Your task to perform on an android device: Search for Mexican restaurants on Maps Image 0: 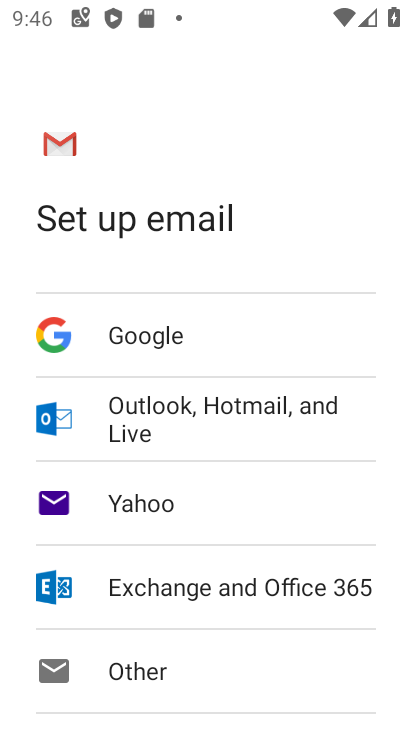
Step 0: press home button
Your task to perform on an android device: Search for Mexican restaurants on Maps Image 1: 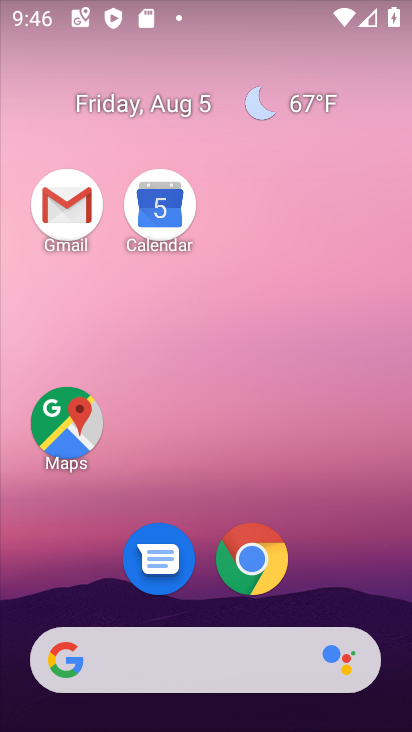
Step 1: click (71, 417)
Your task to perform on an android device: Search for Mexican restaurants on Maps Image 2: 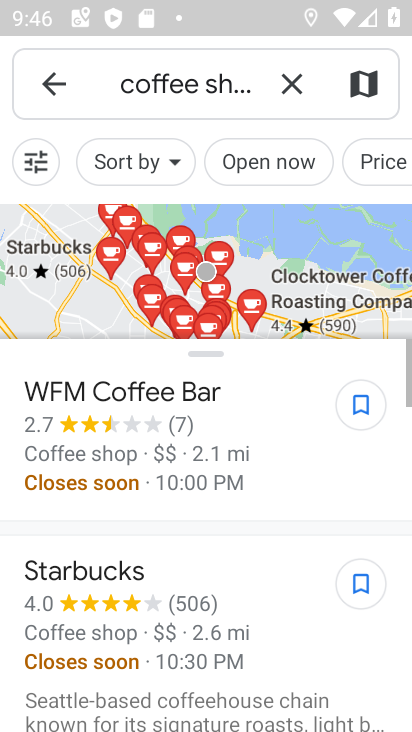
Step 2: click (280, 74)
Your task to perform on an android device: Search for Mexican restaurants on Maps Image 3: 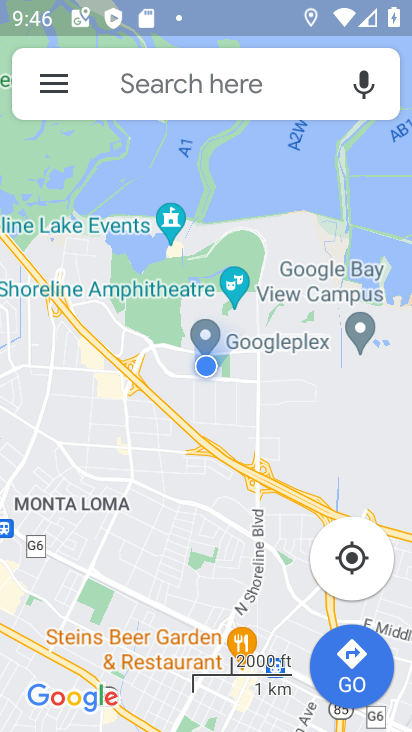
Step 3: click (178, 90)
Your task to perform on an android device: Search for Mexican restaurants on Maps Image 4: 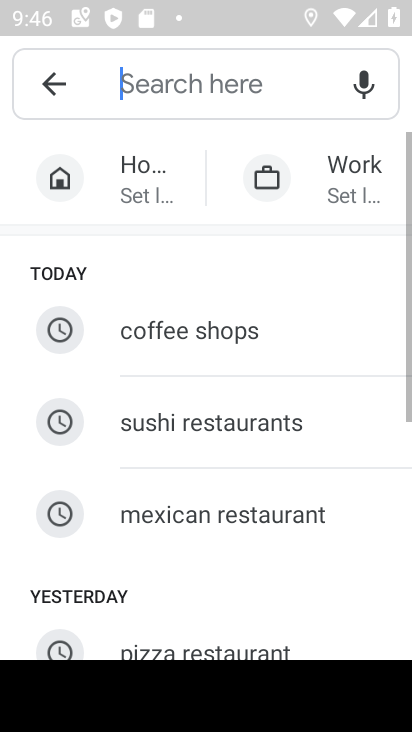
Step 4: drag from (239, 453) to (200, 164)
Your task to perform on an android device: Search for Mexican restaurants on Maps Image 5: 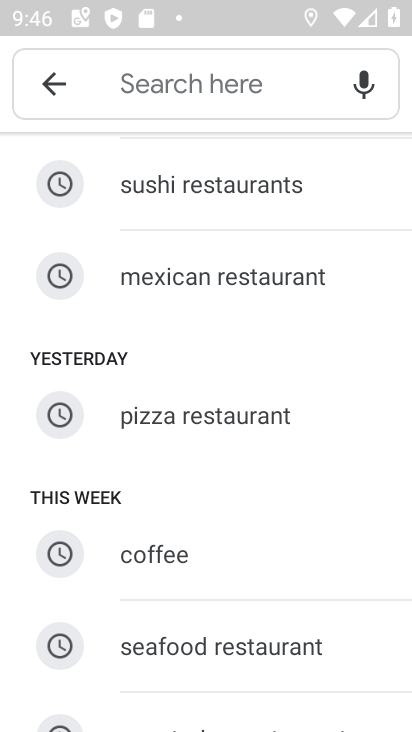
Step 5: click (240, 281)
Your task to perform on an android device: Search for Mexican restaurants on Maps Image 6: 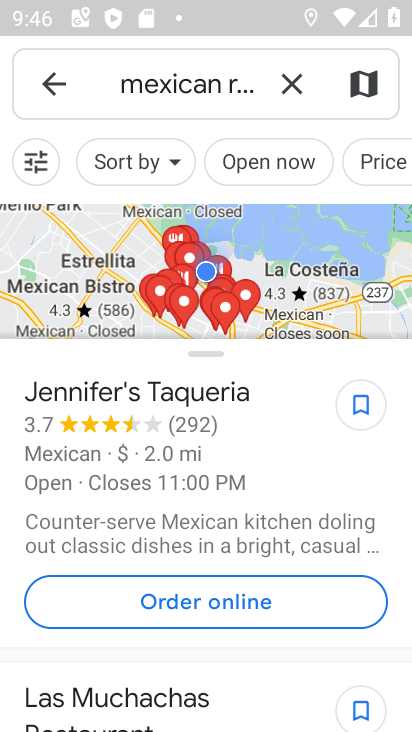
Step 6: task complete